Your task to perform on an android device: turn on airplane mode Image 0: 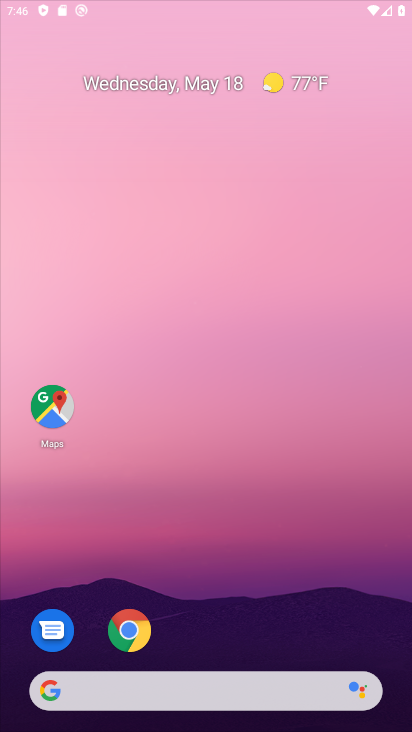
Step 0: click (307, 211)
Your task to perform on an android device: turn on airplane mode Image 1: 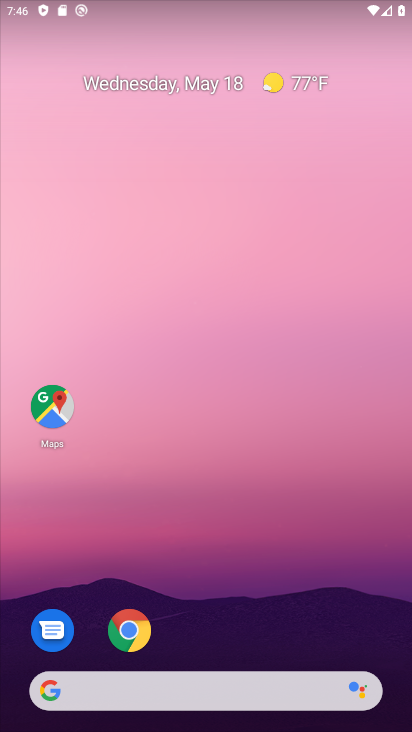
Step 1: drag from (284, 582) to (321, 232)
Your task to perform on an android device: turn on airplane mode Image 2: 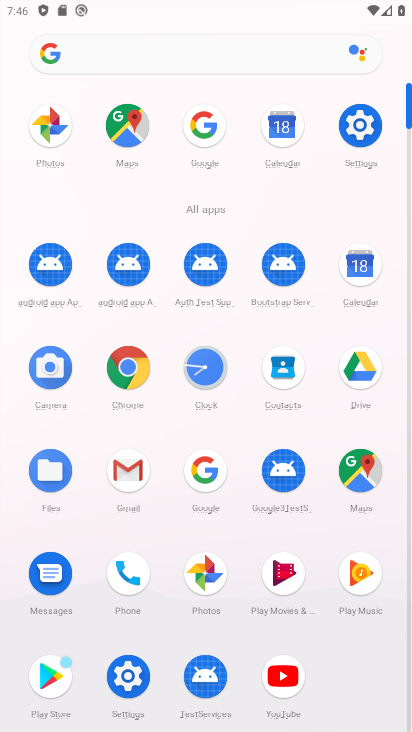
Step 2: click (370, 130)
Your task to perform on an android device: turn on airplane mode Image 3: 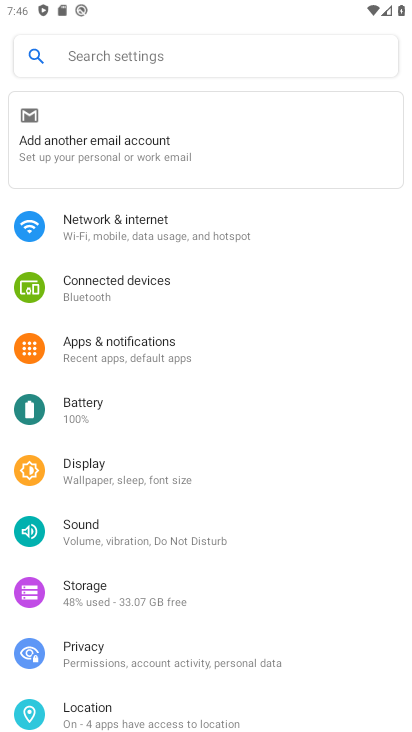
Step 3: click (198, 235)
Your task to perform on an android device: turn on airplane mode Image 4: 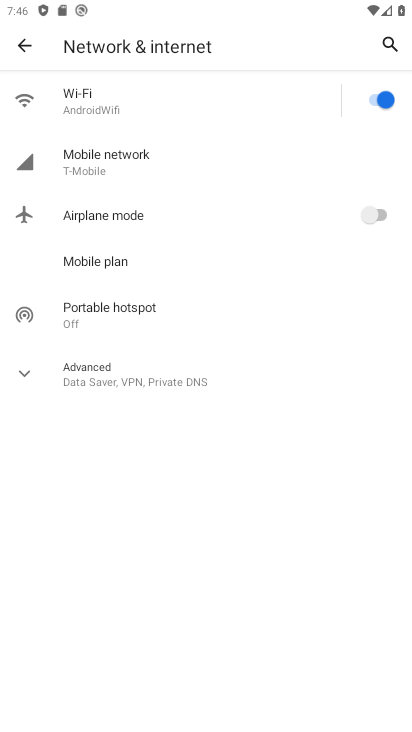
Step 4: click (368, 215)
Your task to perform on an android device: turn on airplane mode Image 5: 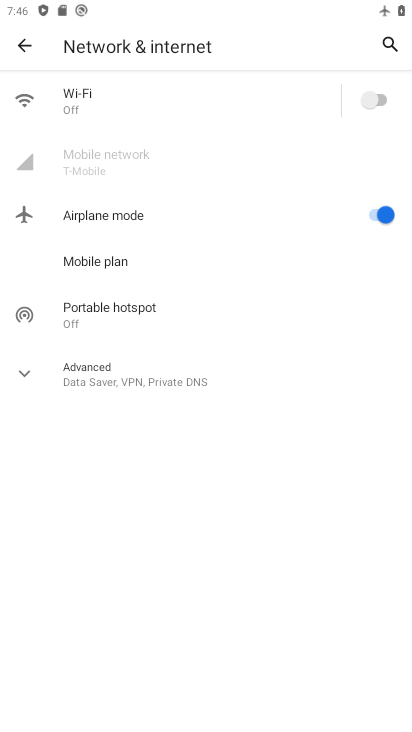
Step 5: task complete